Your task to perform on an android device: Open location settings Image 0: 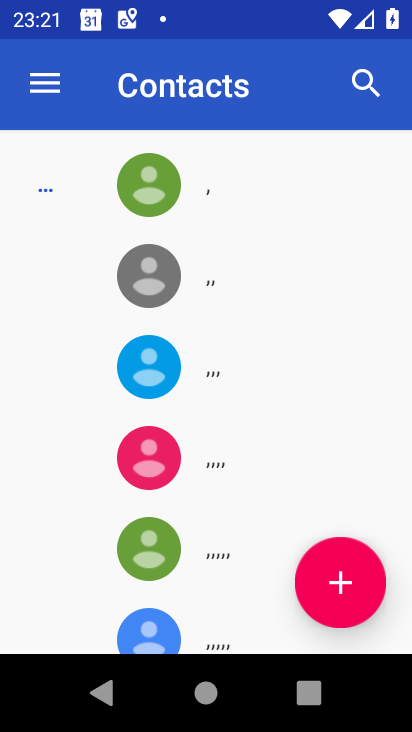
Step 0: press home button
Your task to perform on an android device: Open location settings Image 1: 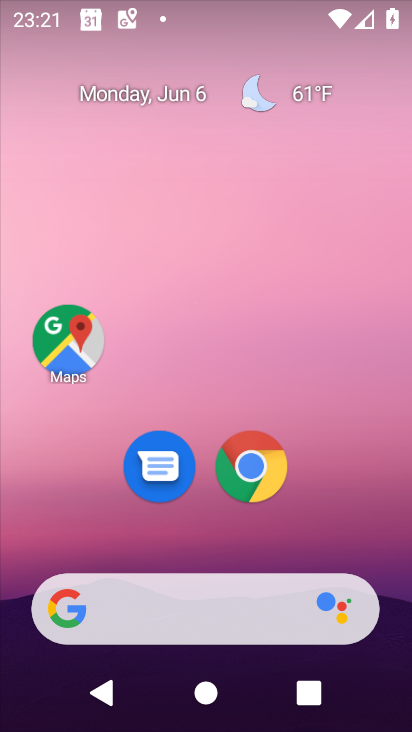
Step 1: drag from (285, 528) to (265, 2)
Your task to perform on an android device: Open location settings Image 2: 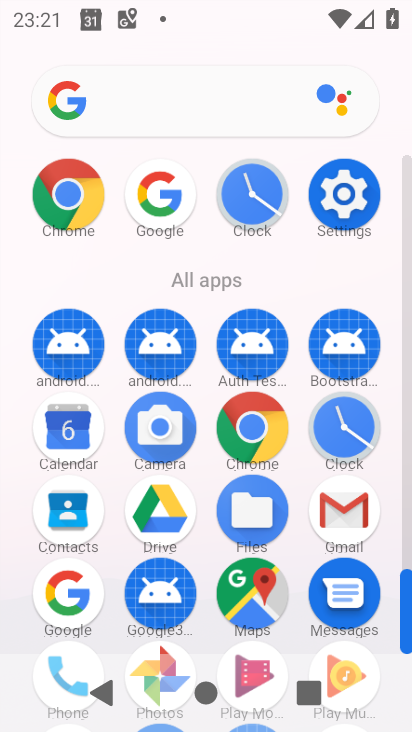
Step 2: click (353, 208)
Your task to perform on an android device: Open location settings Image 3: 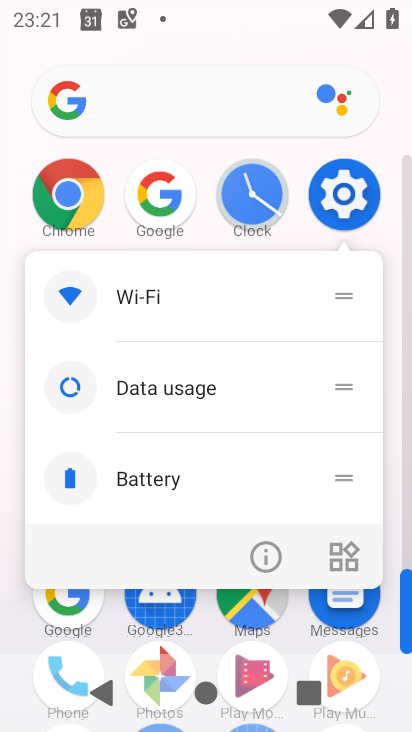
Step 3: click (353, 208)
Your task to perform on an android device: Open location settings Image 4: 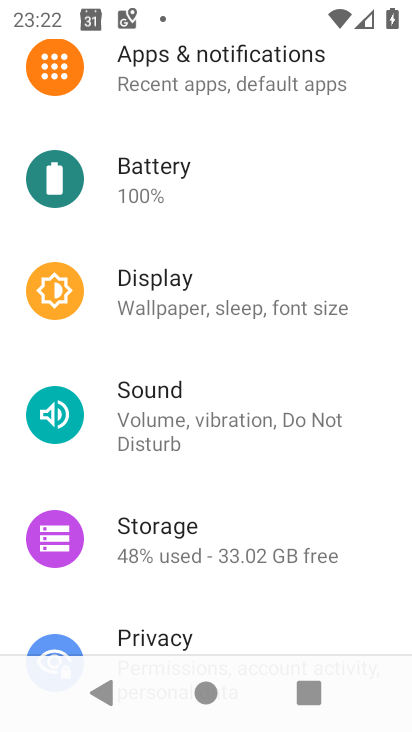
Step 4: drag from (276, 488) to (295, 0)
Your task to perform on an android device: Open location settings Image 5: 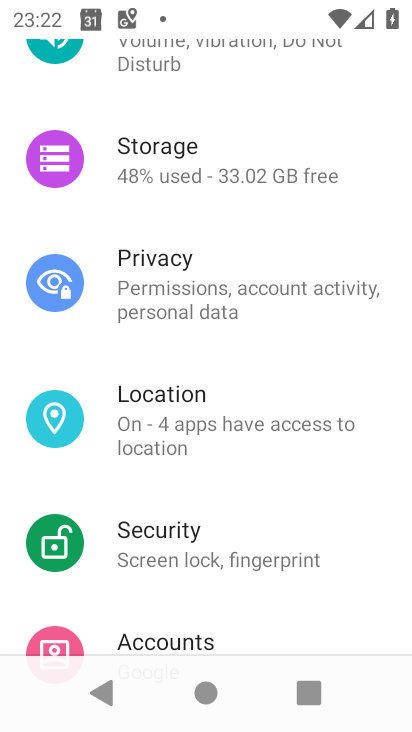
Step 5: click (207, 411)
Your task to perform on an android device: Open location settings Image 6: 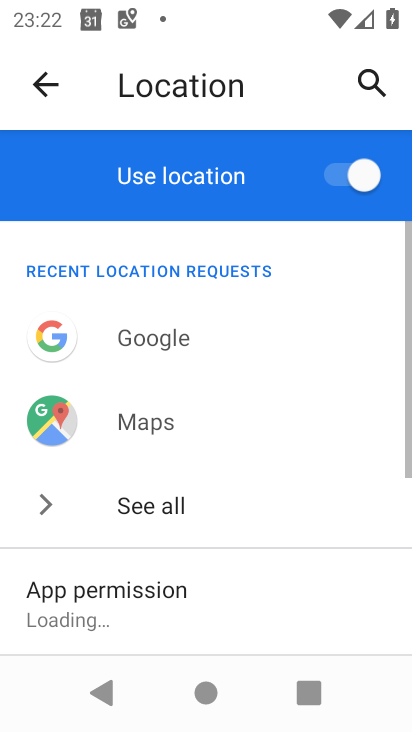
Step 6: task complete